Your task to perform on an android device: move a message to another label in the gmail app Image 0: 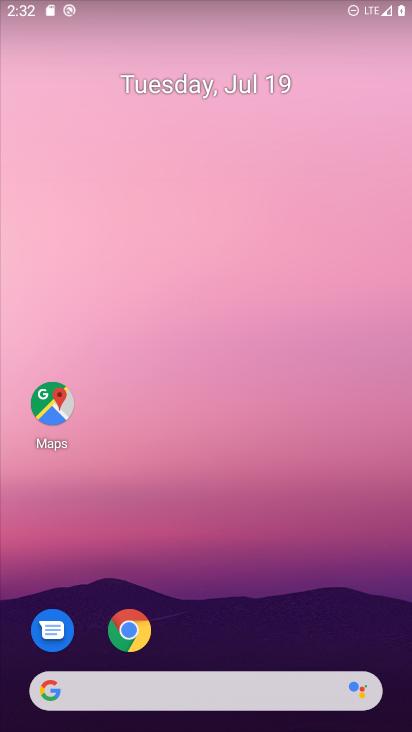
Step 0: drag from (388, 660) to (339, 137)
Your task to perform on an android device: move a message to another label in the gmail app Image 1: 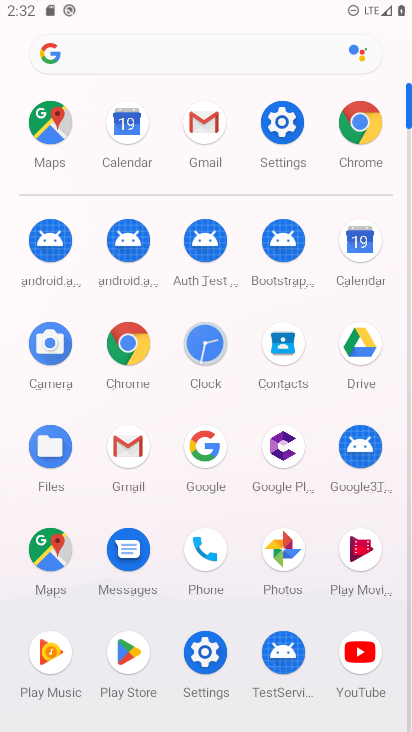
Step 1: click (126, 446)
Your task to perform on an android device: move a message to another label in the gmail app Image 2: 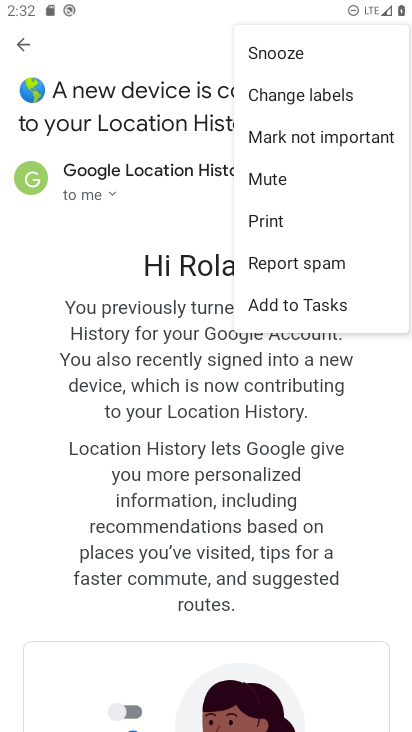
Step 2: click (284, 402)
Your task to perform on an android device: move a message to another label in the gmail app Image 3: 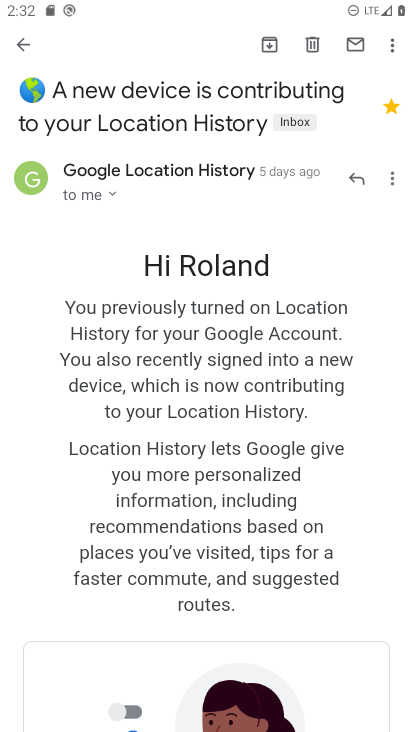
Step 3: press back button
Your task to perform on an android device: move a message to another label in the gmail app Image 4: 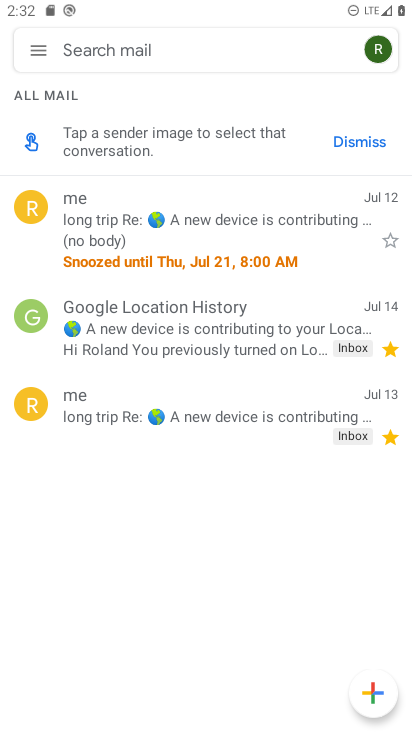
Step 4: click (216, 421)
Your task to perform on an android device: move a message to another label in the gmail app Image 5: 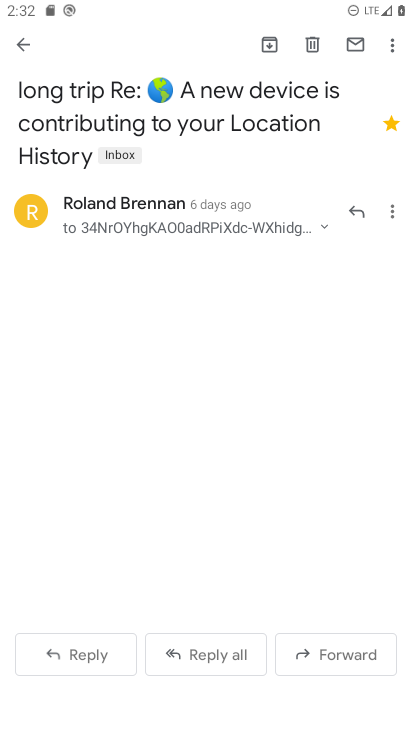
Step 5: click (392, 48)
Your task to perform on an android device: move a message to another label in the gmail app Image 6: 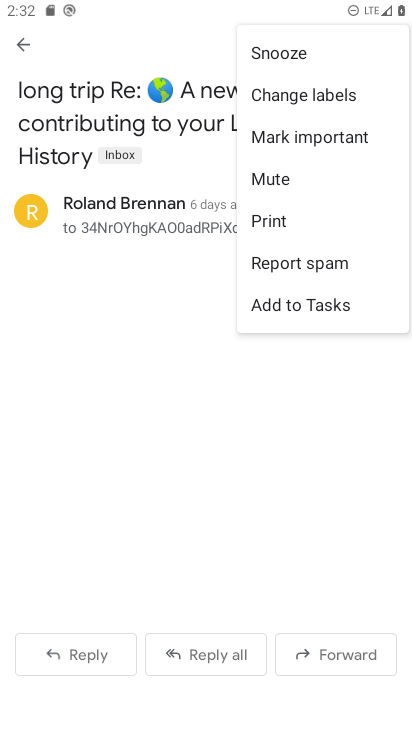
Step 6: task complete